Your task to perform on an android device: Go to Google Image 0: 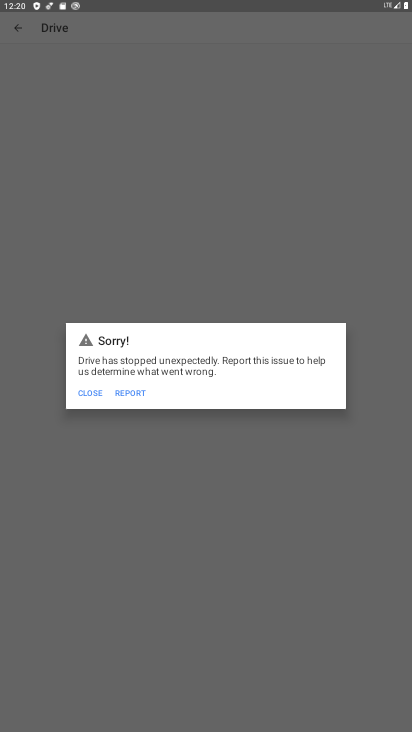
Step 0: press home button
Your task to perform on an android device: Go to Google Image 1: 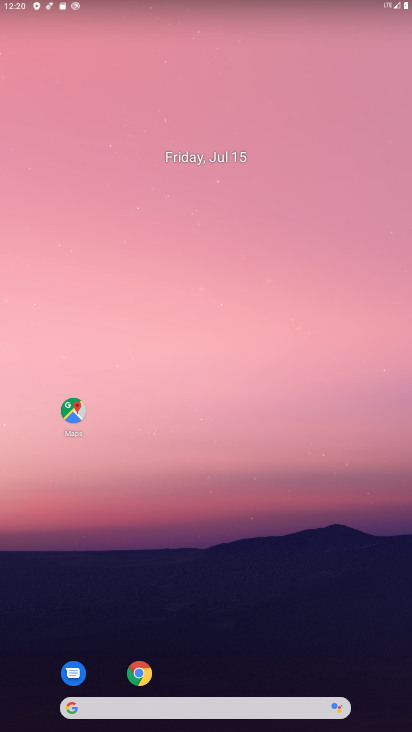
Step 1: drag from (381, 683) to (327, 125)
Your task to perform on an android device: Go to Google Image 2: 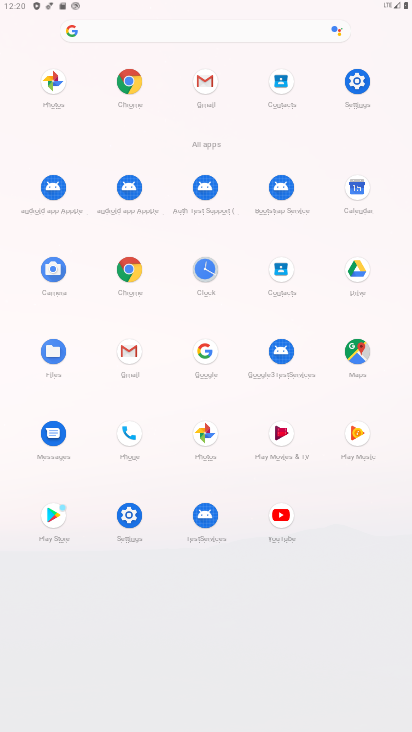
Step 2: click (206, 355)
Your task to perform on an android device: Go to Google Image 3: 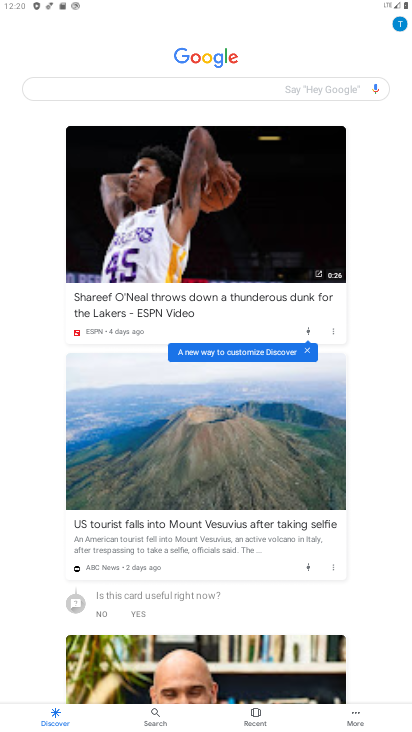
Step 3: task complete